Your task to perform on an android device: Open maps Image 0: 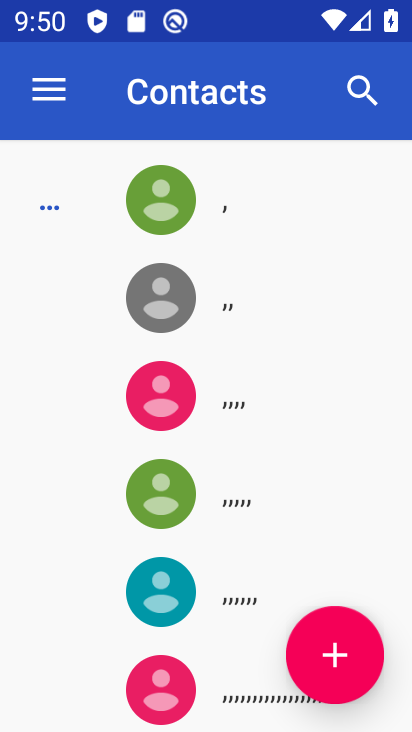
Step 0: press home button
Your task to perform on an android device: Open maps Image 1: 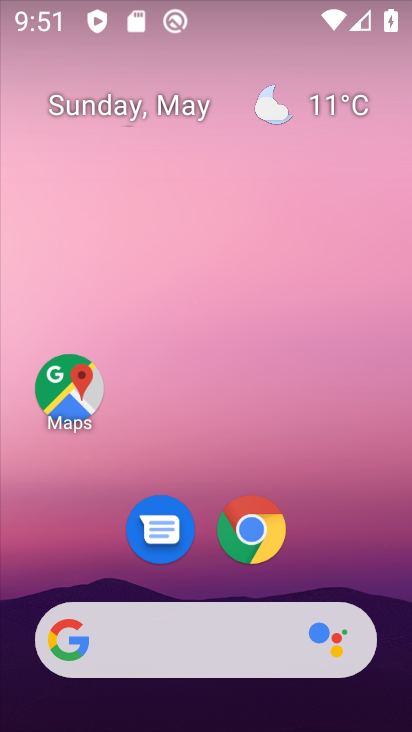
Step 1: click (65, 404)
Your task to perform on an android device: Open maps Image 2: 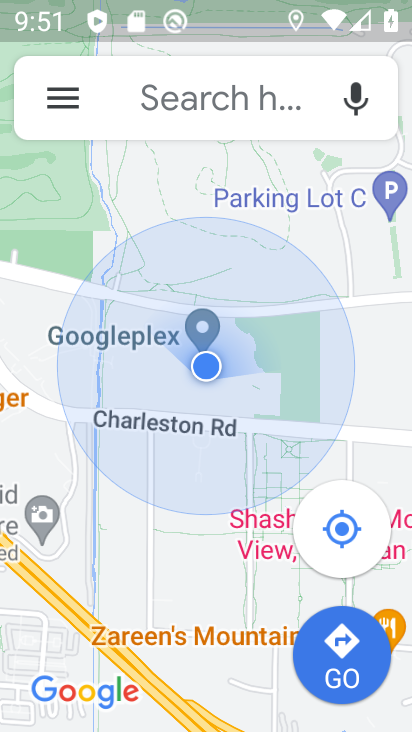
Step 2: task complete